Your task to perform on an android device: Go to internet settings Image 0: 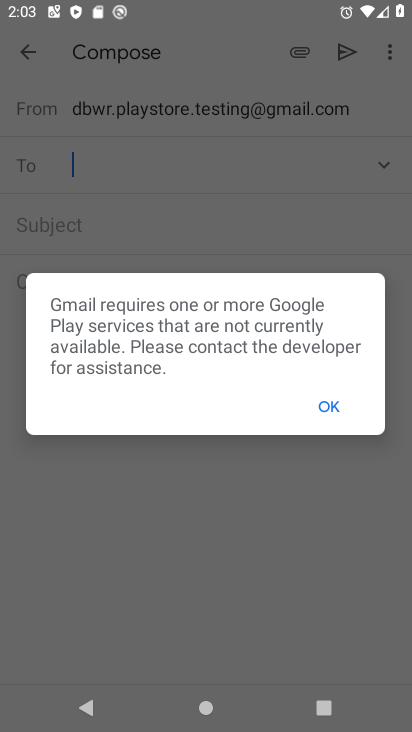
Step 0: press home button
Your task to perform on an android device: Go to internet settings Image 1: 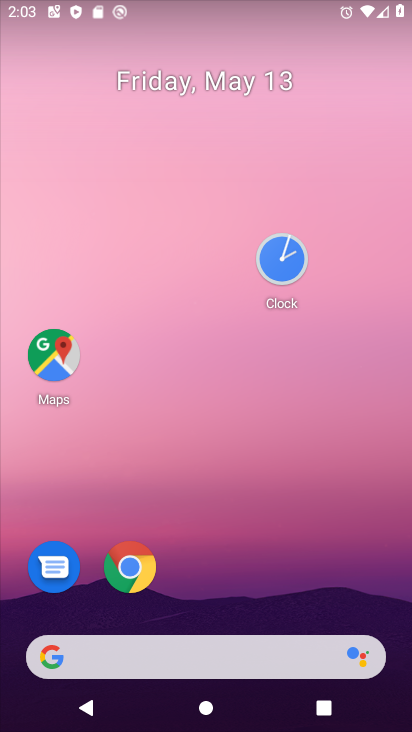
Step 1: drag from (279, 564) to (306, 146)
Your task to perform on an android device: Go to internet settings Image 2: 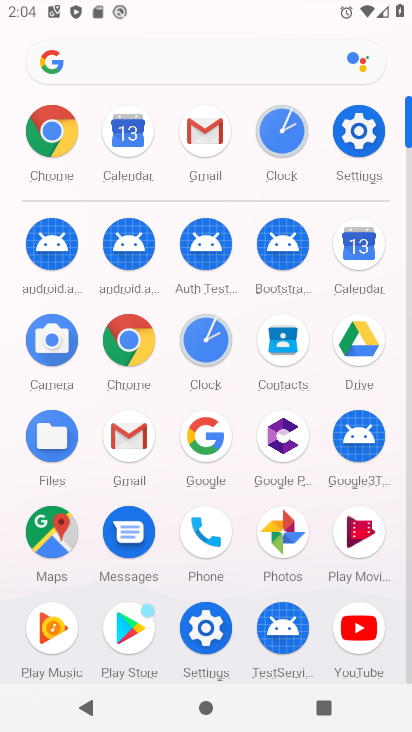
Step 2: click (370, 167)
Your task to perform on an android device: Go to internet settings Image 3: 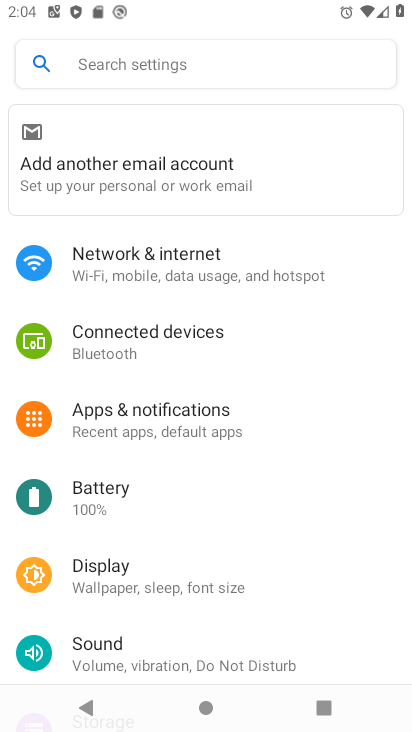
Step 3: click (217, 262)
Your task to perform on an android device: Go to internet settings Image 4: 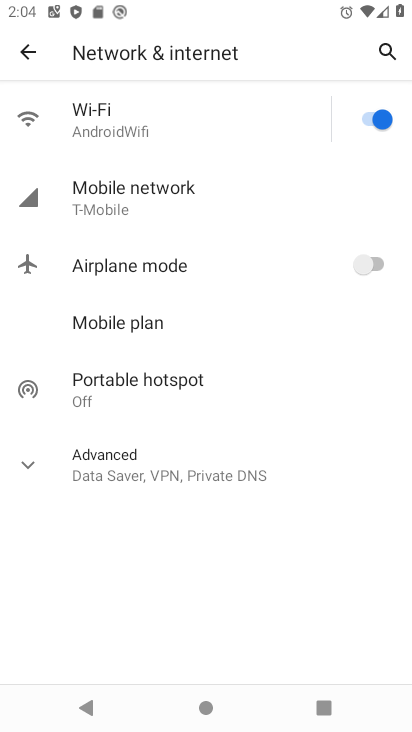
Step 4: task complete